Your task to perform on an android device: Open internet settings Image 0: 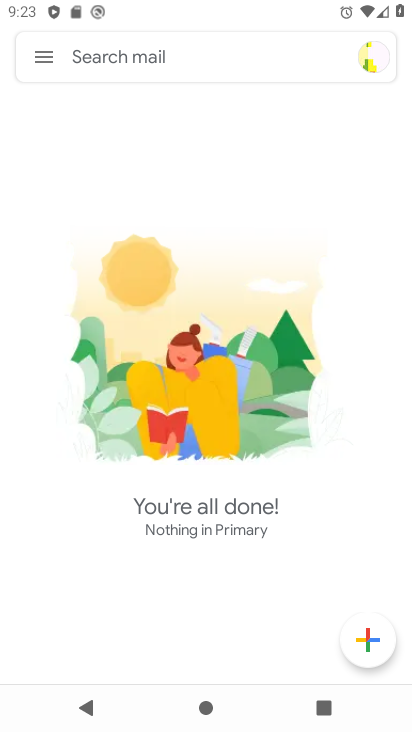
Step 0: press home button
Your task to perform on an android device: Open internet settings Image 1: 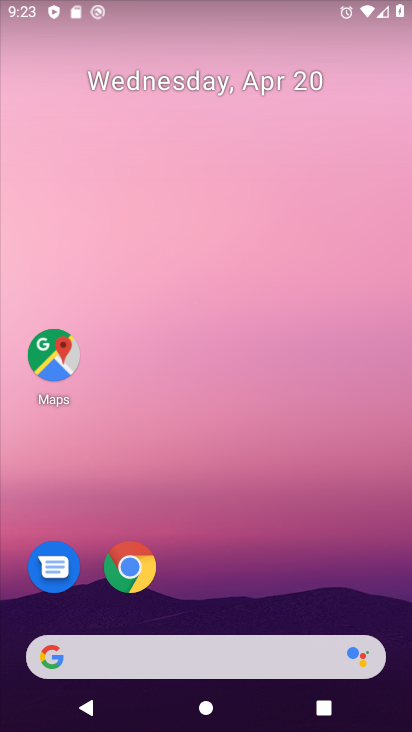
Step 1: drag from (314, 558) to (338, 137)
Your task to perform on an android device: Open internet settings Image 2: 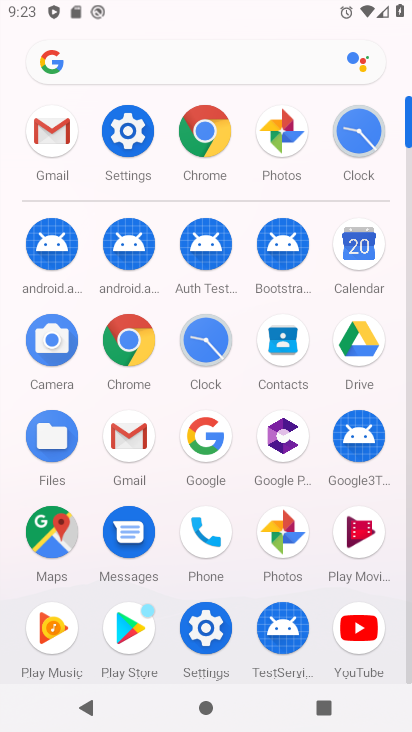
Step 2: click (135, 129)
Your task to perform on an android device: Open internet settings Image 3: 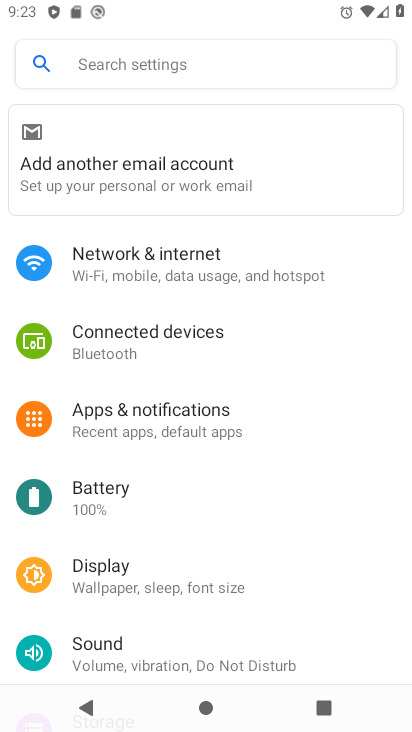
Step 3: drag from (348, 407) to (363, 280)
Your task to perform on an android device: Open internet settings Image 4: 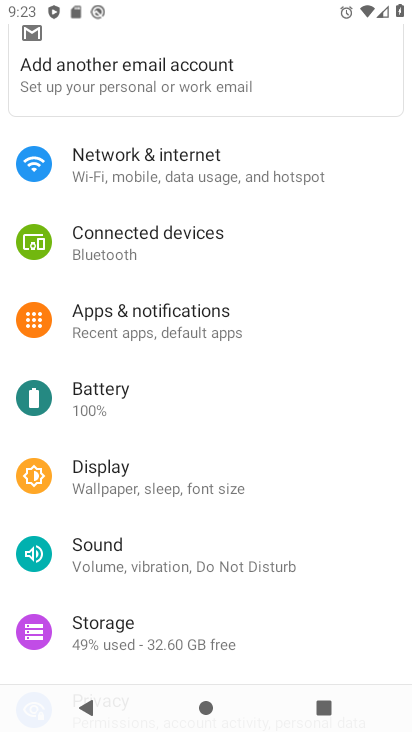
Step 4: drag from (350, 494) to (366, 297)
Your task to perform on an android device: Open internet settings Image 5: 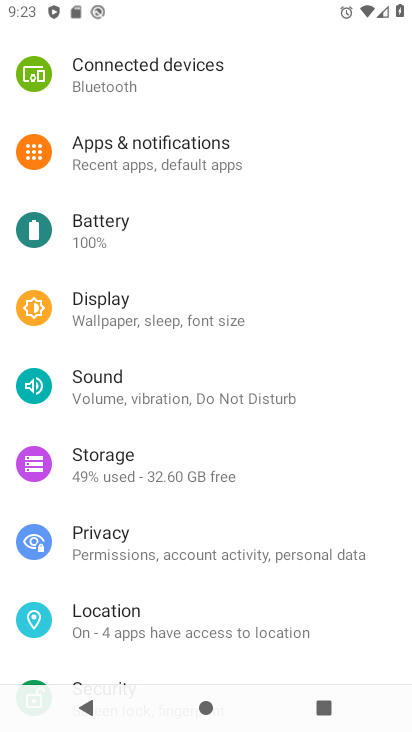
Step 5: drag from (345, 483) to (341, 278)
Your task to perform on an android device: Open internet settings Image 6: 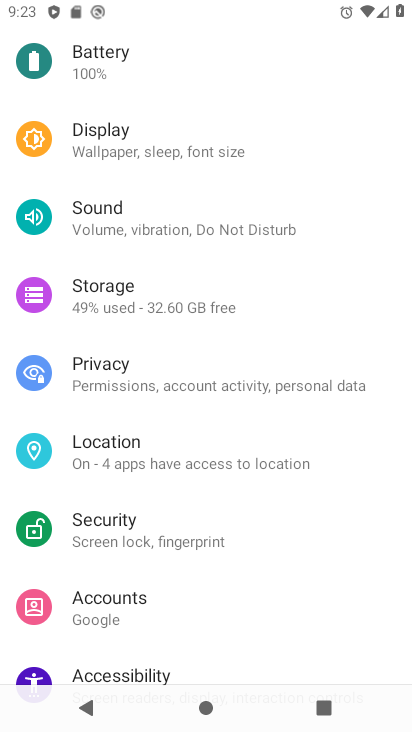
Step 6: drag from (345, 581) to (375, 306)
Your task to perform on an android device: Open internet settings Image 7: 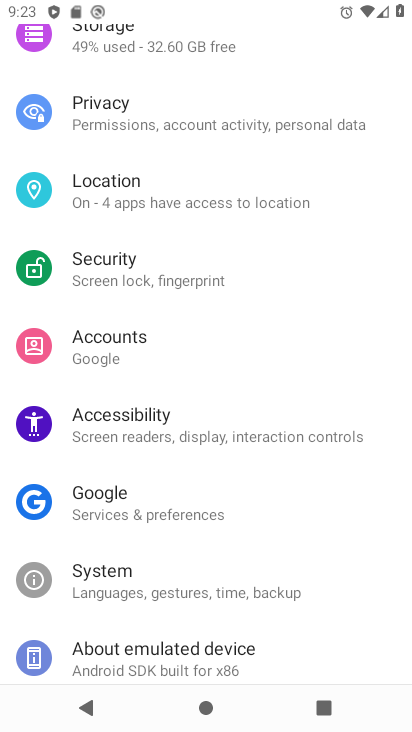
Step 7: drag from (385, 290) to (364, 537)
Your task to perform on an android device: Open internet settings Image 8: 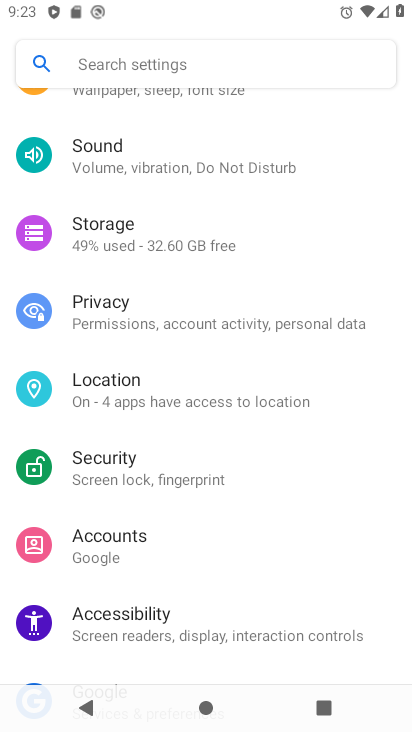
Step 8: drag from (385, 320) to (358, 510)
Your task to perform on an android device: Open internet settings Image 9: 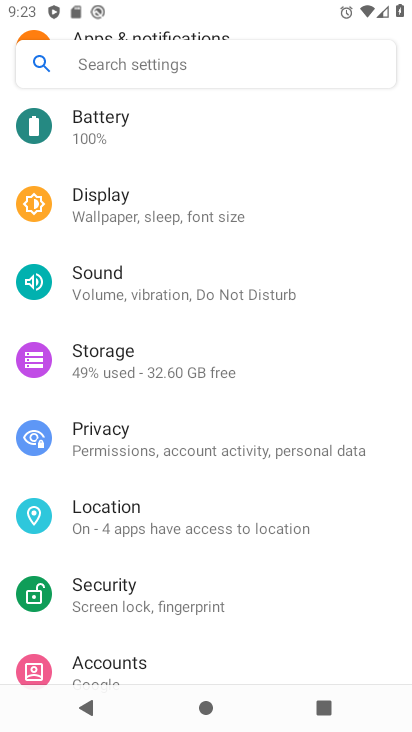
Step 9: drag from (368, 226) to (350, 420)
Your task to perform on an android device: Open internet settings Image 10: 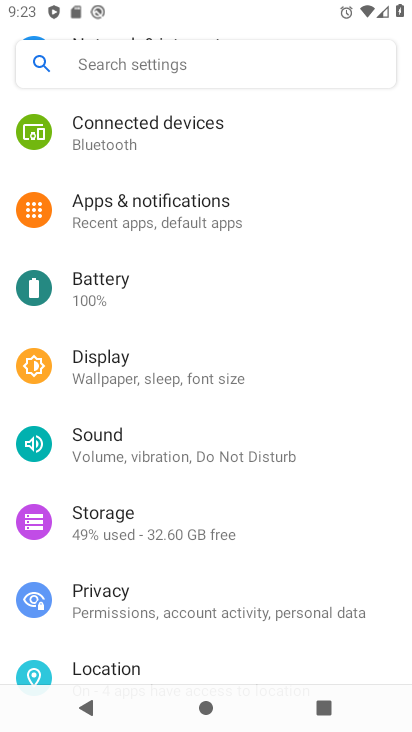
Step 10: drag from (367, 207) to (354, 420)
Your task to perform on an android device: Open internet settings Image 11: 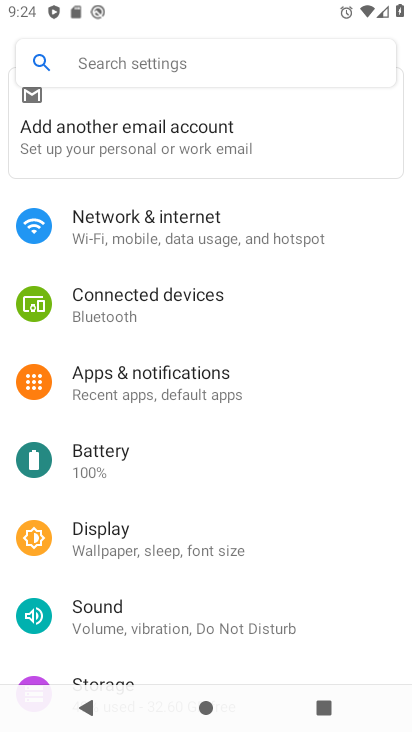
Step 11: click (248, 234)
Your task to perform on an android device: Open internet settings Image 12: 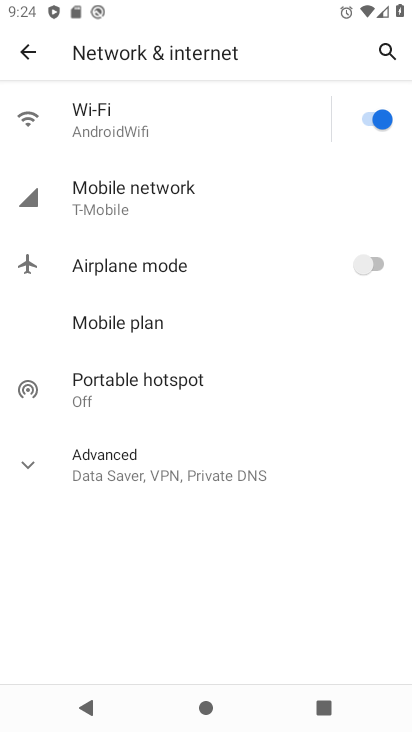
Step 12: task complete